Your task to perform on an android device: set default search engine in the chrome app Image 0: 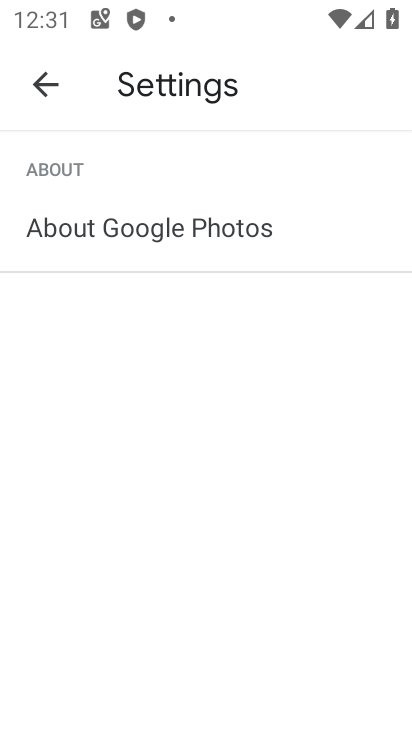
Step 0: press home button
Your task to perform on an android device: set default search engine in the chrome app Image 1: 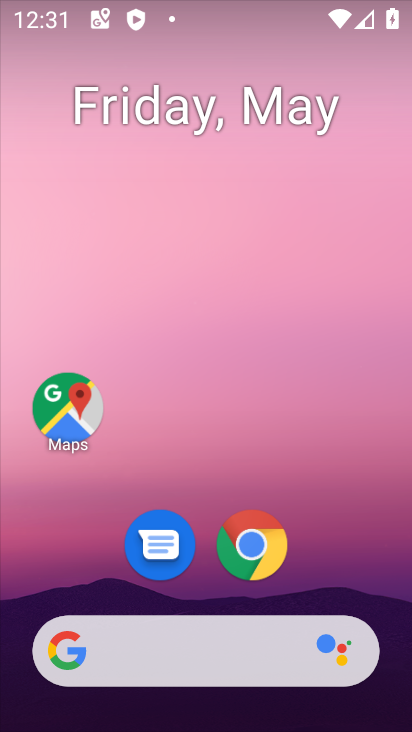
Step 1: click (260, 542)
Your task to perform on an android device: set default search engine in the chrome app Image 2: 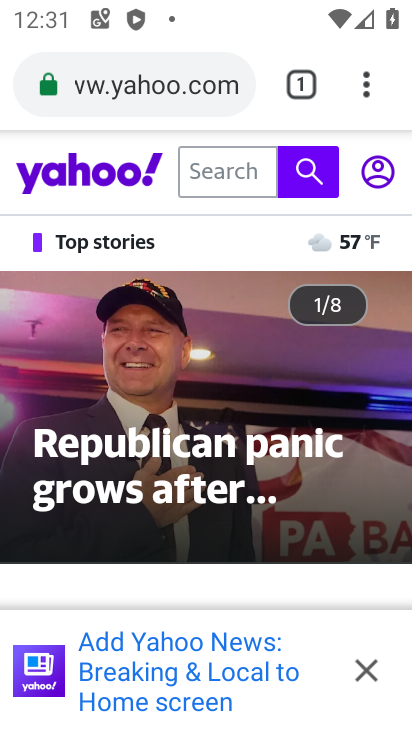
Step 2: click (374, 50)
Your task to perform on an android device: set default search engine in the chrome app Image 3: 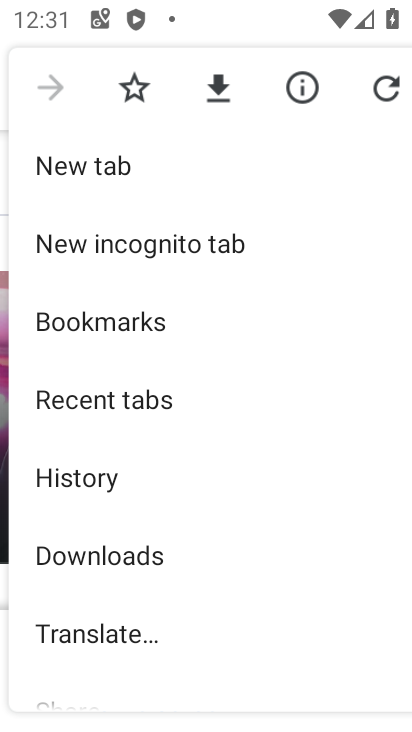
Step 3: drag from (213, 463) to (310, 107)
Your task to perform on an android device: set default search engine in the chrome app Image 4: 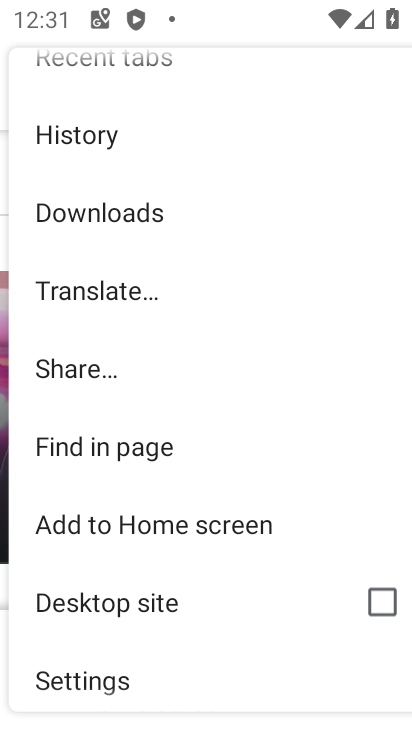
Step 4: drag from (158, 453) to (210, 80)
Your task to perform on an android device: set default search engine in the chrome app Image 5: 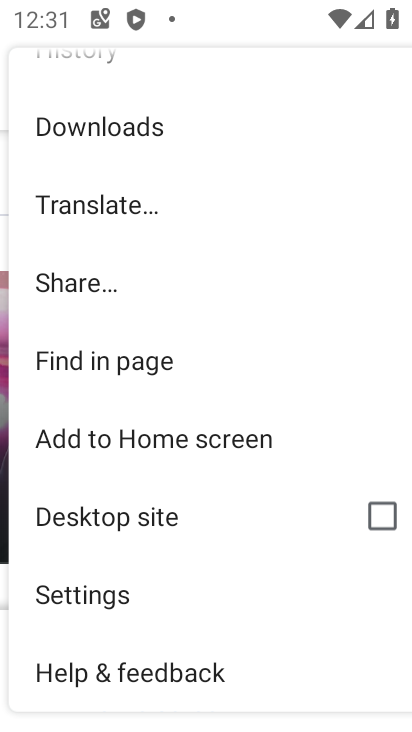
Step 5: click (81, 597)
Your task to perform on an android device: set default search engine in the chrome app Image 6: 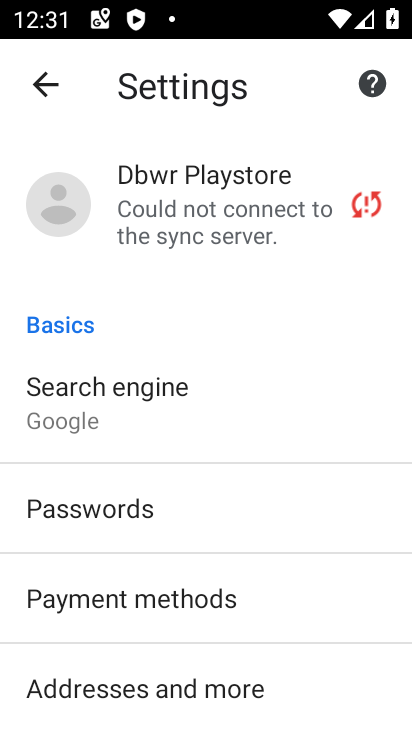
Step 6: drag from (99, 614) to (219, 280)
Your task to perform on an android device: set default search engine in the chrome app Image 7: 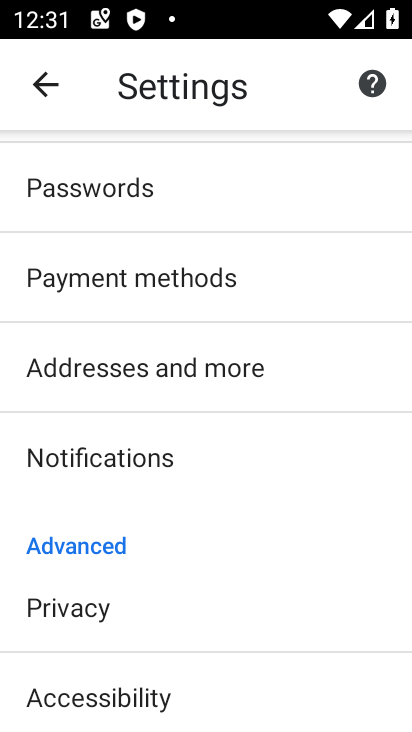
Step 7: drag from (190, 565) to (254, 264)
Your task to perform on an android device: set default search engine in the chrome app Image 8: 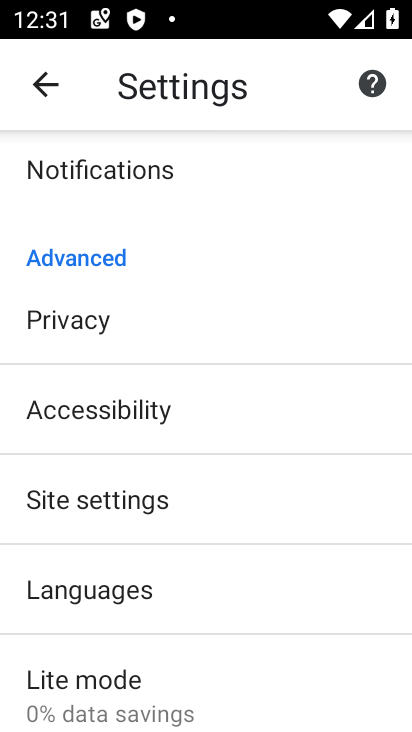
Step 8: drag from (186, 566) to (289, 229)
Your task to perform on an android device: set default search engine in the chrome app Image 9: 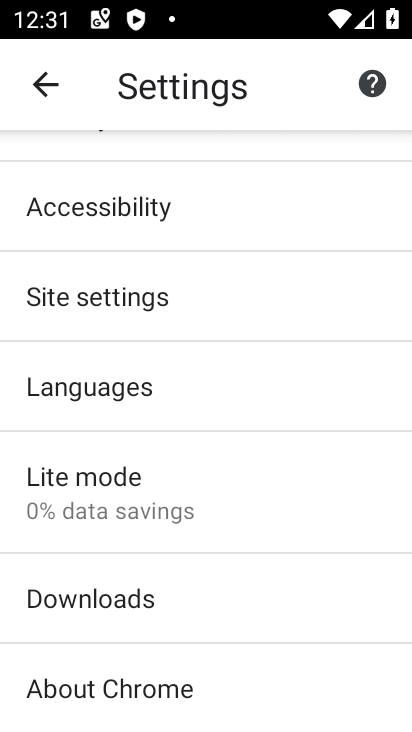
Step 9: drag from (229, 170) to (207, 612)
Your task to perform on an android device: set default search engine in the chrome app Image 10: 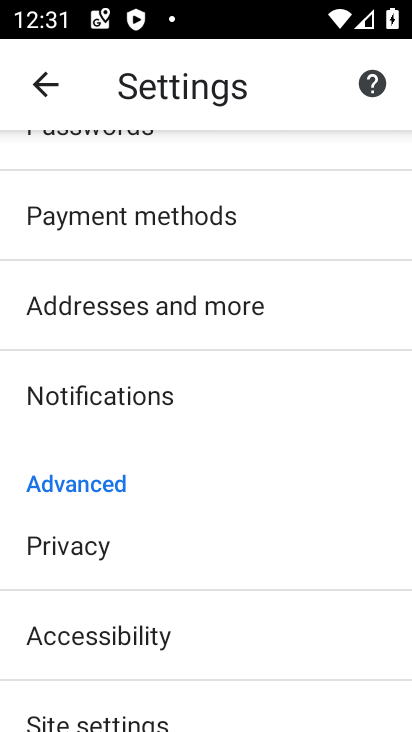
Step 10: click (228, 552)
Your task to perform on an android device: set default search engine in the chrome app Image 11: 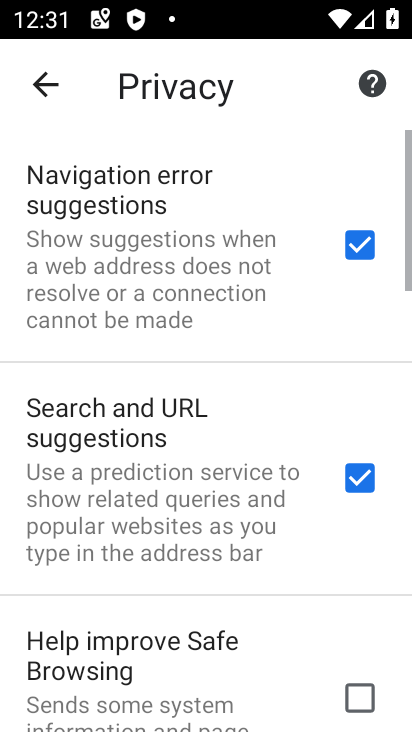
Step 11: task complete